Your task to perform on an android device: Open location settings Image 0: 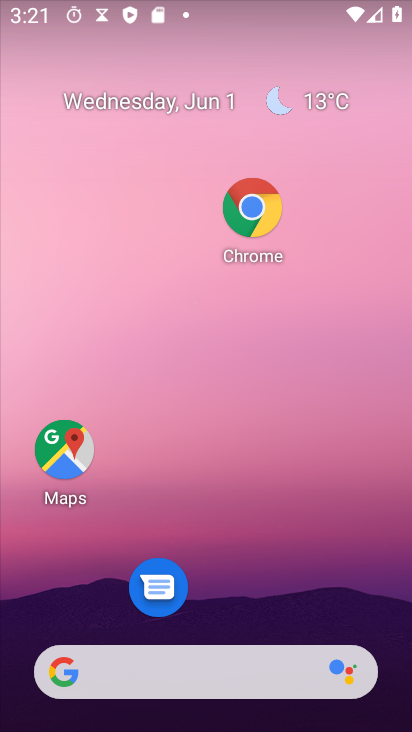
Step 0: drag from (254, 561) to (212, 65)
Your task to perform on an android device: Open location settings Image 1: 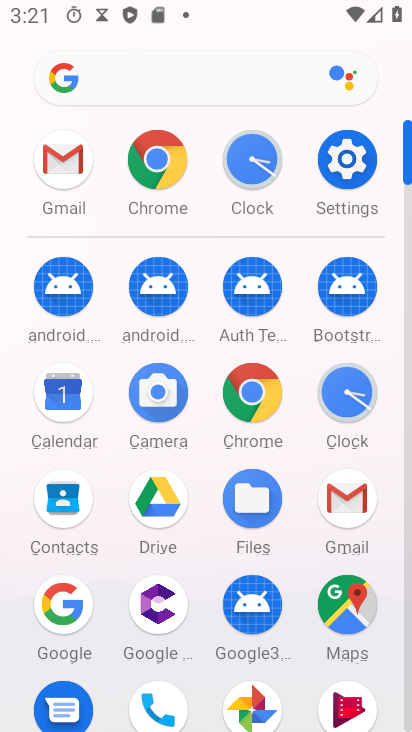
Step 1: click (333, 146)
Your task to perform on an android device: Open location settings Image 2: 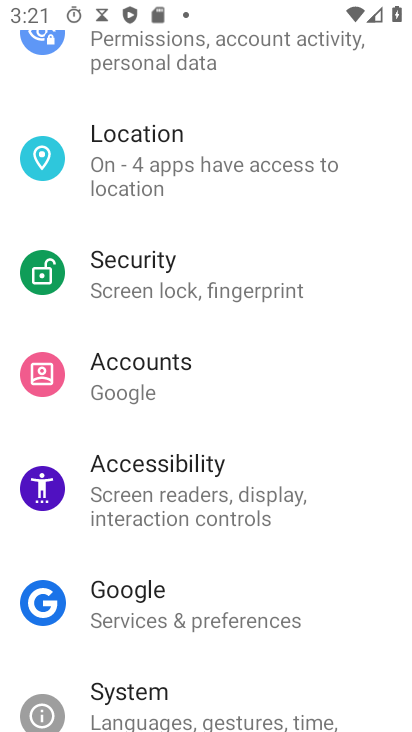
Step 2: click (134, 166)
Your task to perform on an android device: Open location settings Image 3: 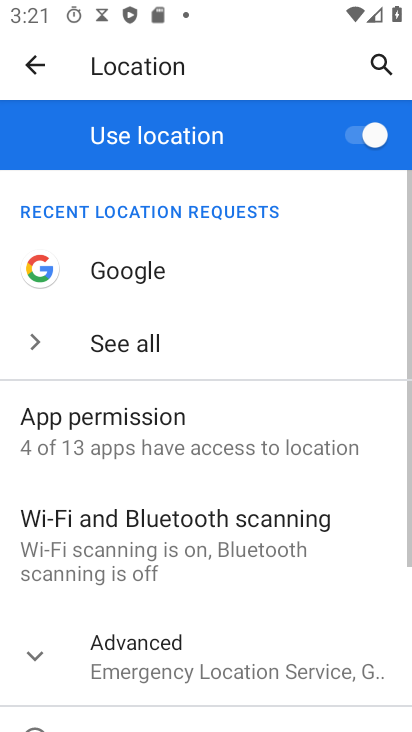
Step 3: task complete